Your task to perform on an android device: turn on the 24-hour format for clock Image 0: 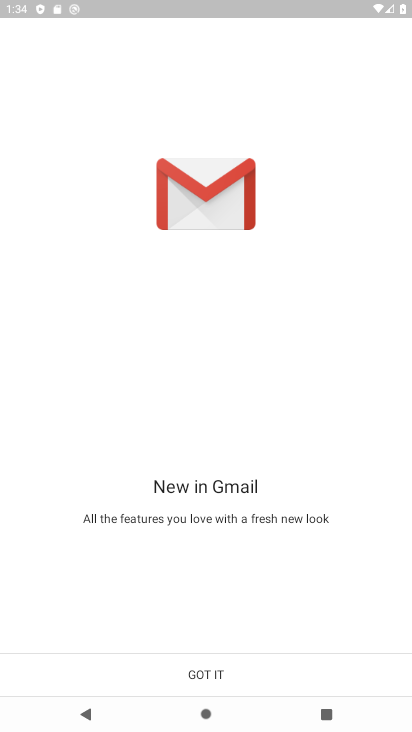
Step 0: press home button
Your task to perform on an android device: turn on the 24-hour format for clock Image 1: 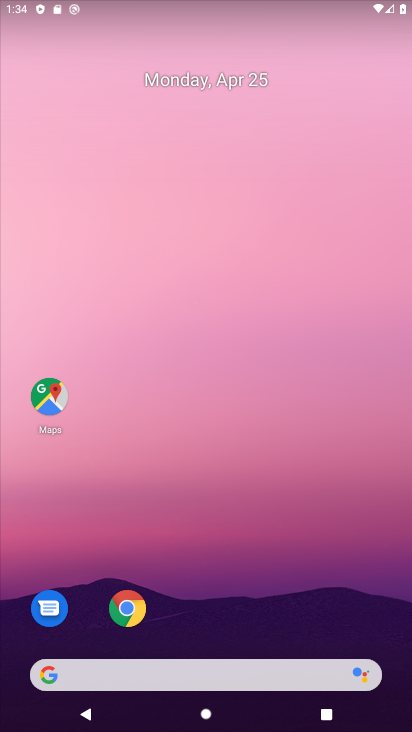
Step 1: drag from (206, 566) to (241, 281)
Your task to perform on an android device: turn on the 24-hour format for clock Image 2: 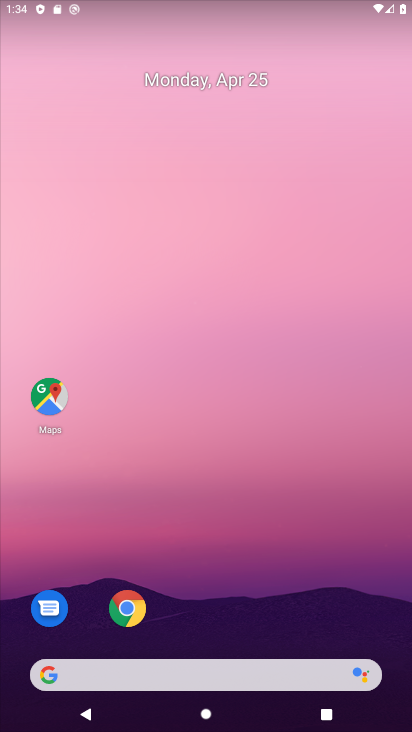
Step 2: drag from (203, 601) to (223, 195)
Your task to perform on an android device: turn on the 24-hour format for clock Image 3: 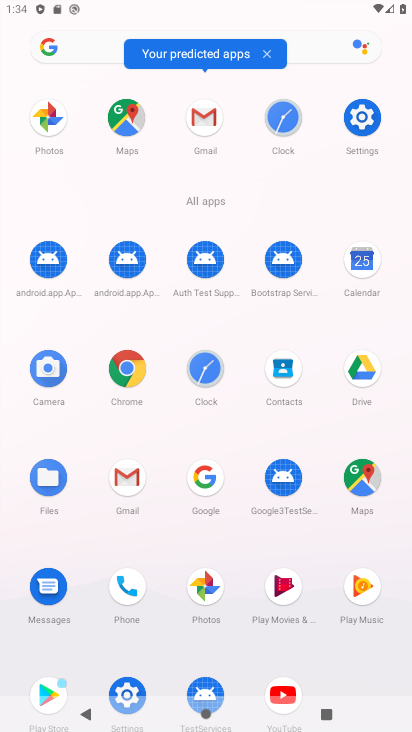
Step 3: click (198, 371)
Your task to perform on an android device: turn on the 24-hour format for clock Image 4: 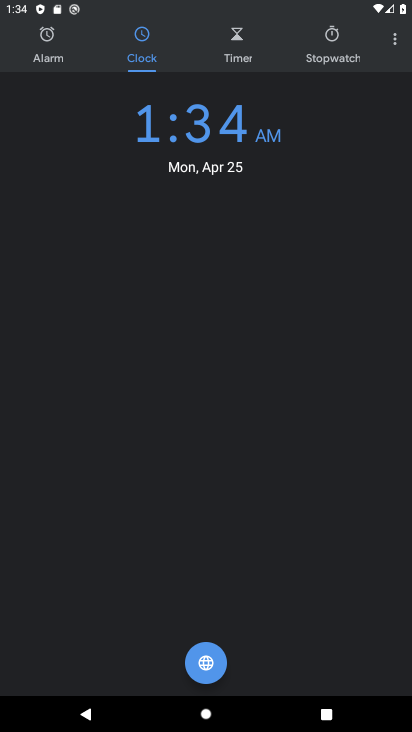
Step 4: click (395, 38)
Your task to perform on an android device: turn on the 24-hour format for clock Image 5: 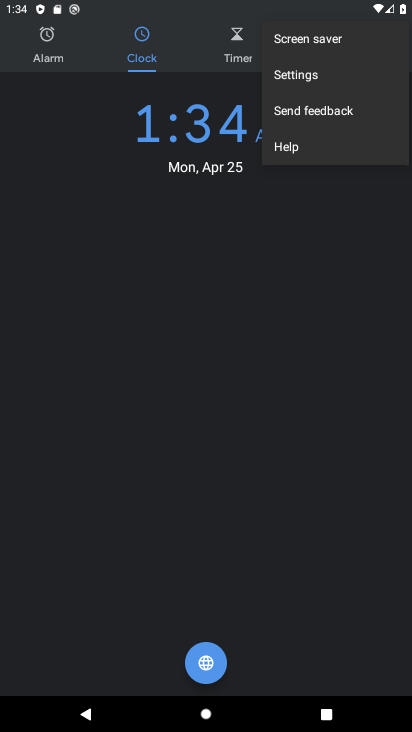
Step 5: click (301, 78)
Your task to perform on an android device: turn on the 24-hour format for clock Image 6: 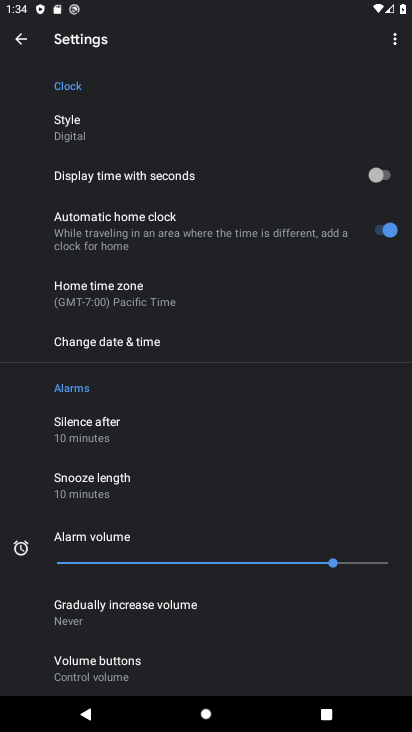
Step 6: click (114, 344)
Your task to perform on an android device: turn on the 24-hour format for clock Image 7: 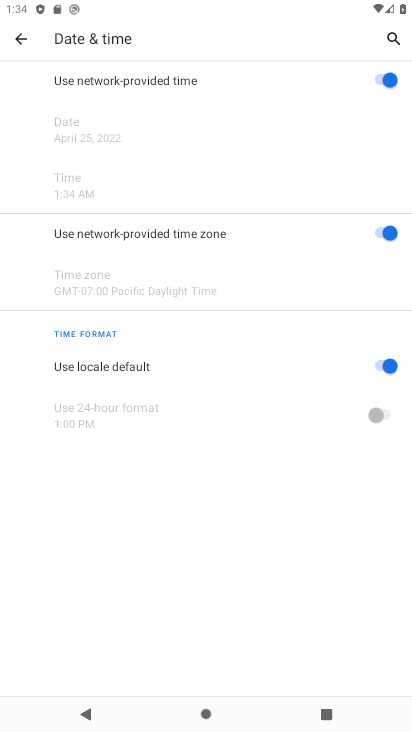
Step 7: click (383, 360)
Your task to perform on an android device: turn on the 24-hour format for clock Image 8: 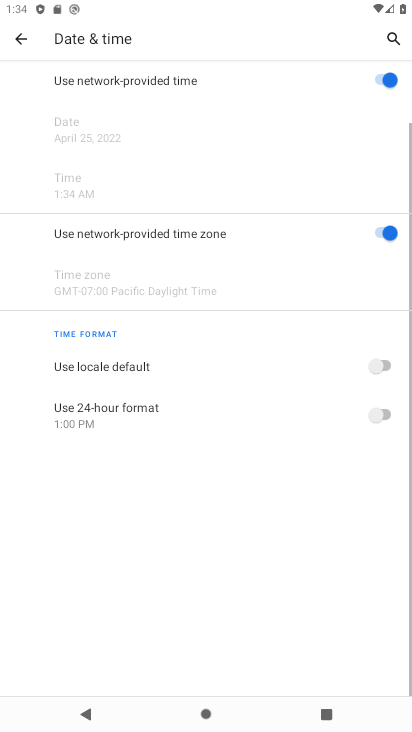
Step 8: click (386, 416)
Your task to perform on an android device: turn on the 24-hour format for clock Image 9: 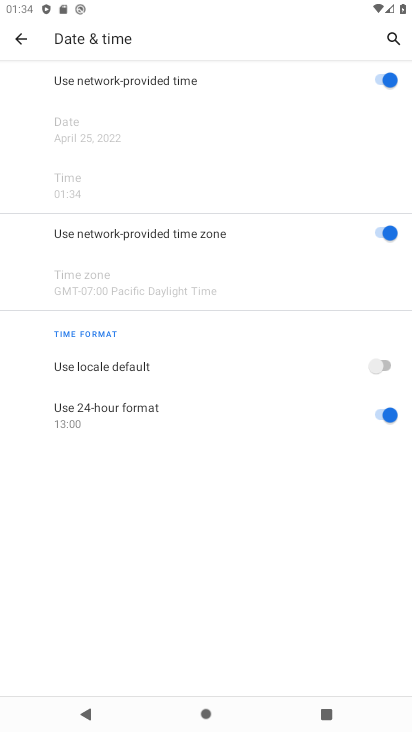
Step 9: task complete